Your task to perform on an android device: Open calendar and show me the first week of next month Image 0: 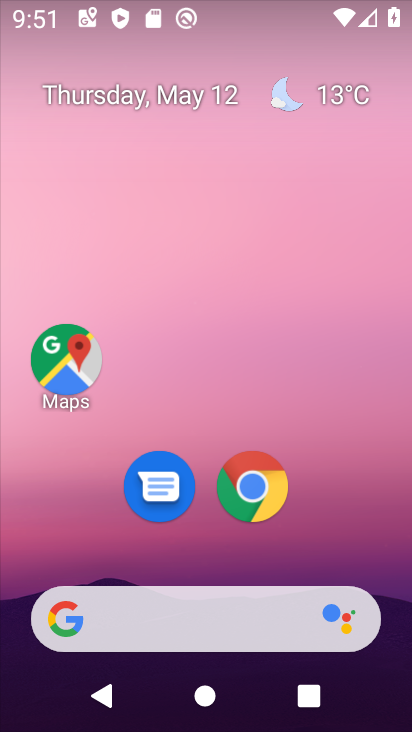
Step 0: drag from (362, 495) to (283, 180)
Your task to perform on an android device: Open calendar and show me the first week of next month Image 1: 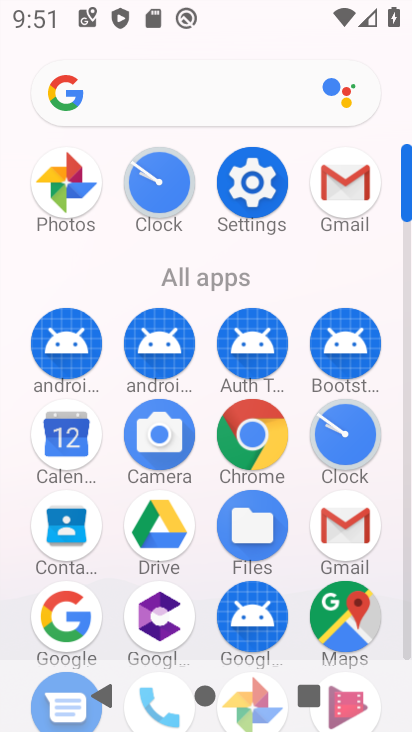
Step 1: click (74, 426)
Your task to perform on an android device: Open calendar and show me the first week of next month Image 2: 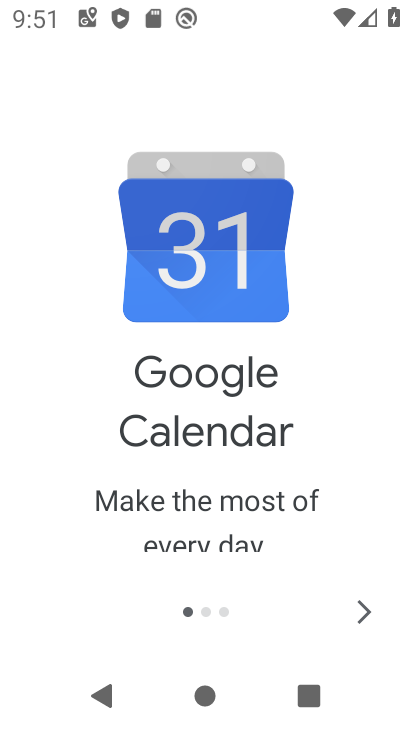
Step 2: click (365, 597)
Your task to perform on an android device: Open calendar and show me the first week of next month Image 3: 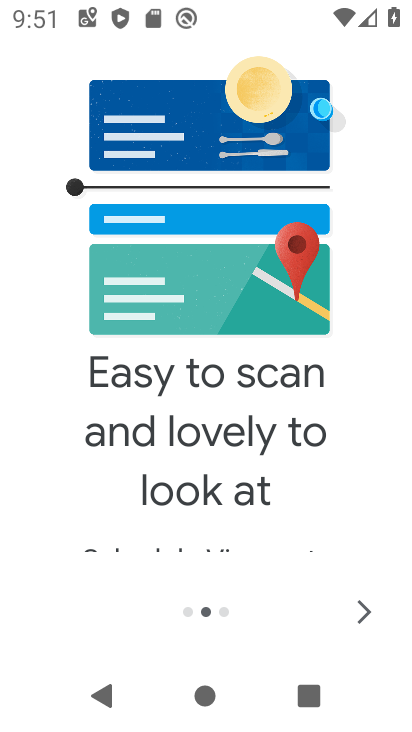
Step 3: click (366, 611)
Your task to perform on an android device: Open calendar and show me the first week of next month Image 4: 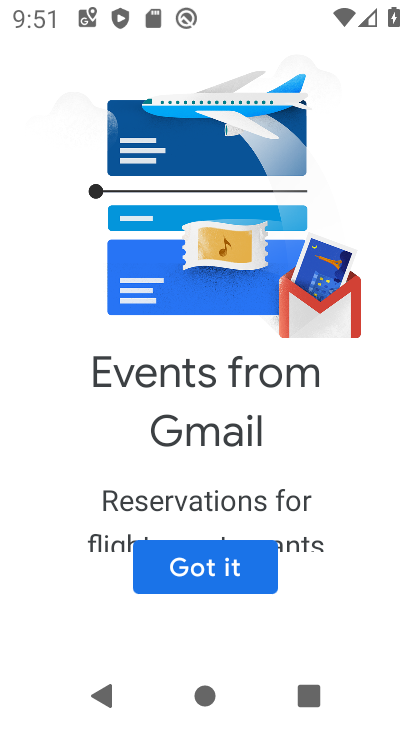
Step 4: click (237, 549)
Your task to perform on an android device: Open calendar and show me the first week of next month Image 5: 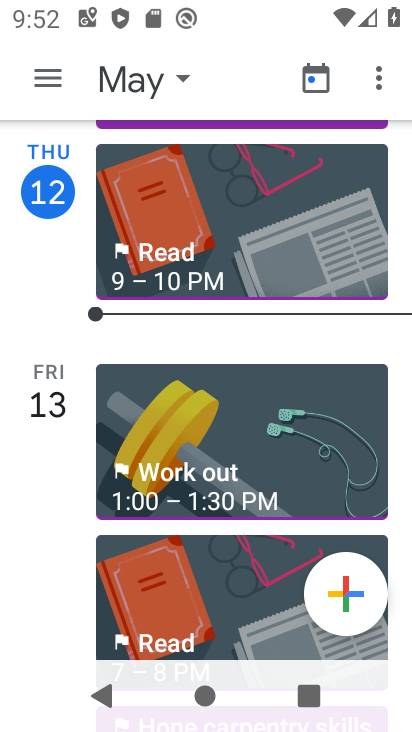
Step 5: click (164, 79)
Your task to perform on an android device: Open calendar and show me the first week of next month Image 6: 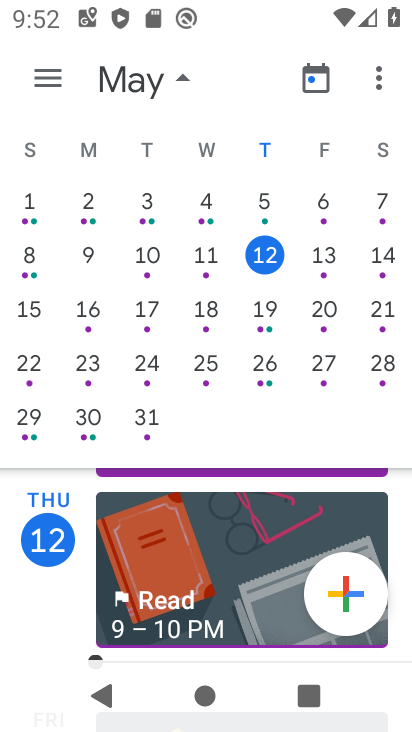
Step 6: drag from (399, 293) to (79, 240)
Your task to perform on an android device: Open calendar and show me the first week of next month Image 7: 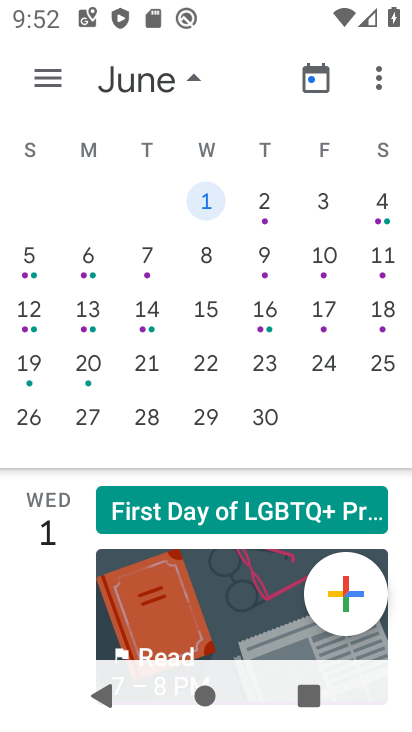
Step 7: click (85, 252)
Your task to perform on an android device: Open calendar and show me the first week of next month Image 8: 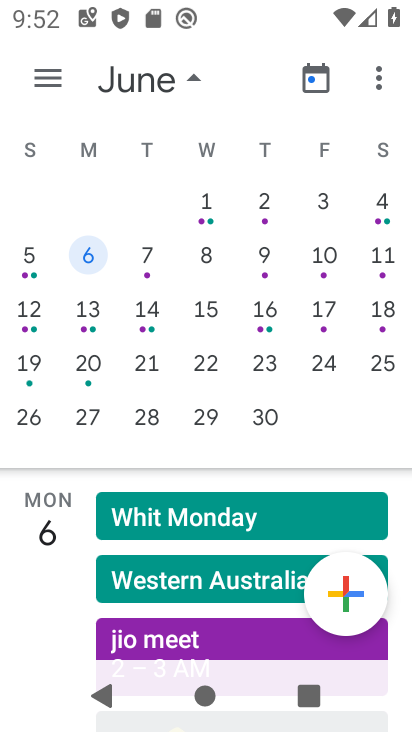
Step 8: click (48, 68)
Your task to perform on an android device: Open calendar and show me the first week of next month Image 9: 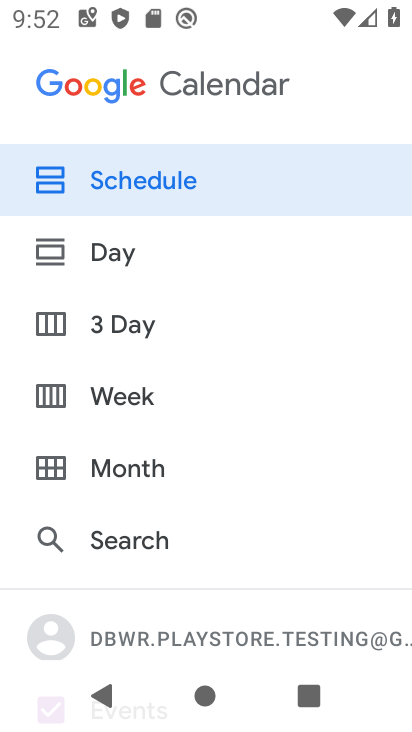
Step 9: click (168, 398)
Your task to perform on an android device: Open calendar and show me the first week of next month Image 10: 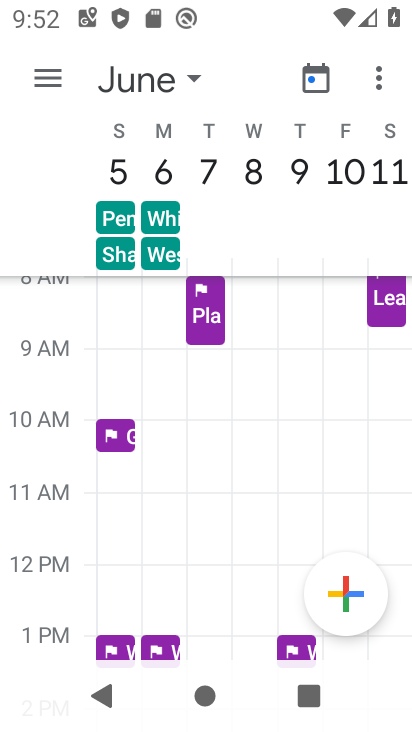
Step 10: task complete